Your task to perform on an android device: toggle javascript in the chrome app Image 0: 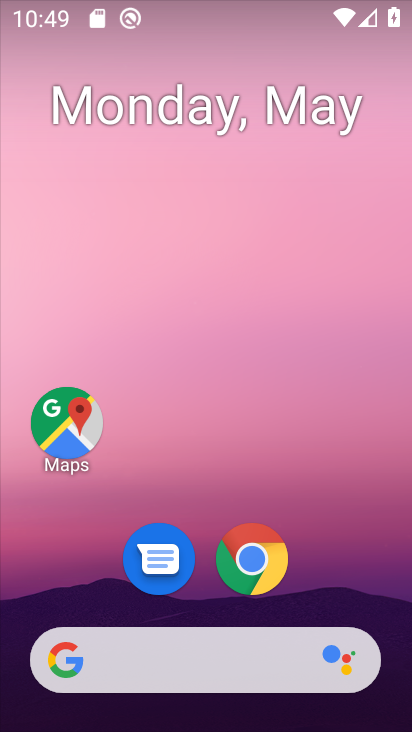
Step 0: click (262, 579)
Your task to perform on an android device: toggle javascript in the chrome app Image 1: 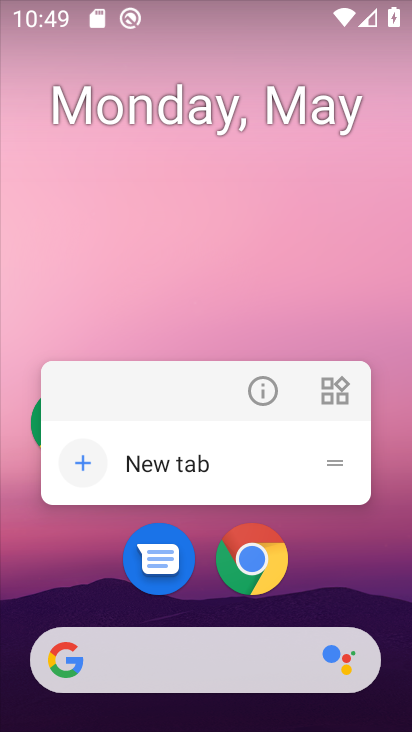
Step 1: click (243, 578)
Your task to perform on an android device: toggle javascript in the chrome app Image 2: 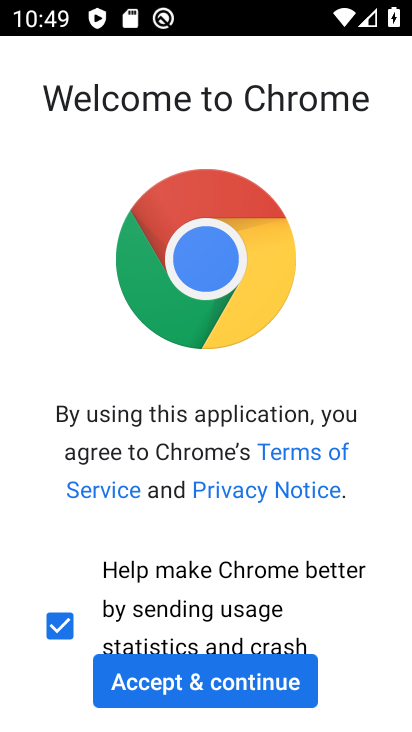
Step 2: click (218, 665)
Your task to perform on an android device: toggle javascript in the chrome app Image 3: 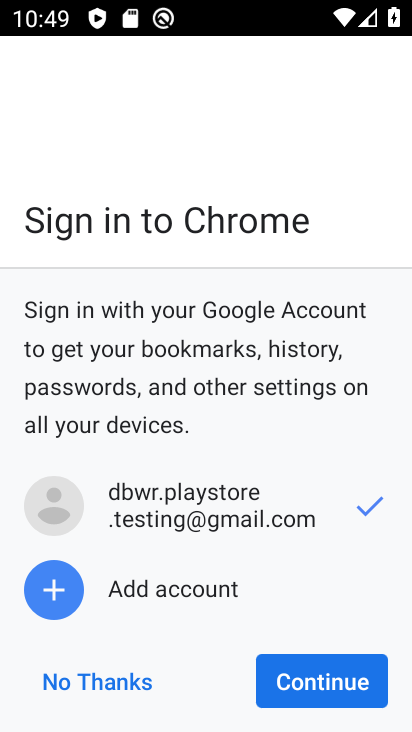
Step 3: click (308, 694)
Your task to perform on an android device: toggle javascript in the chrome app Image 4: 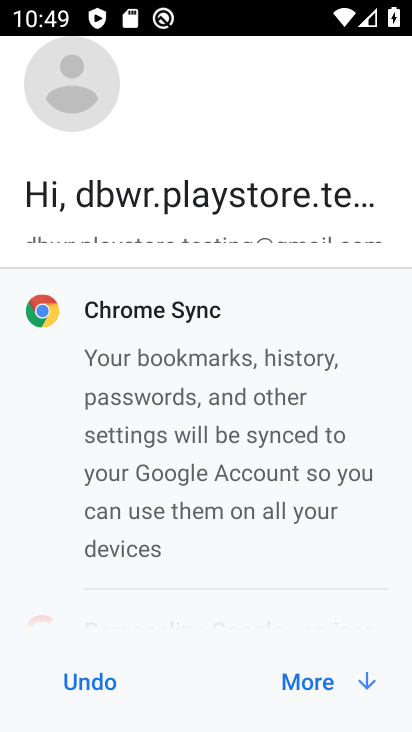
Step 4: click (355, 689)
Your task to perform on an android device: toggle javascript in the chrome app Image 5: 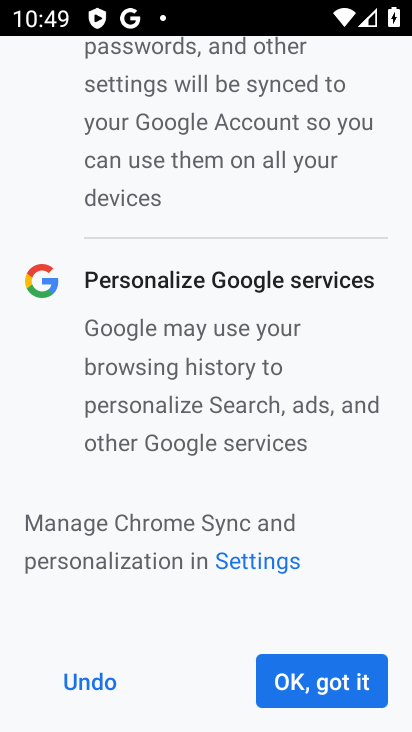
Step 5: click (356, 688)
Your task to perform on an android device: toggle javascript in the chrome app Image 6: 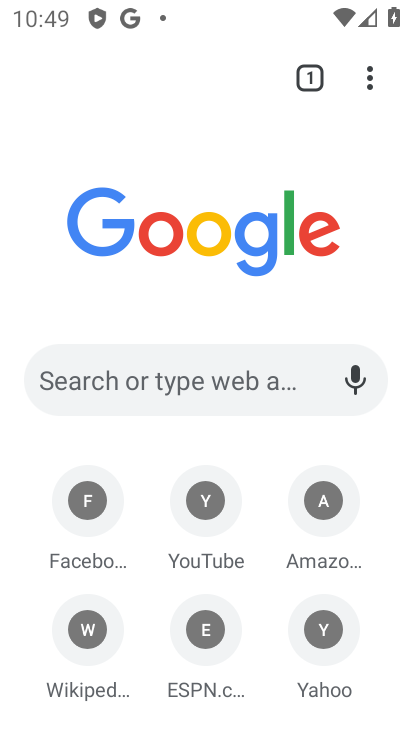
Step 6: drag from (366, 80) to (189, 623)
Your task to perform on an android device: toggle javascript in the chrome app Image 7: 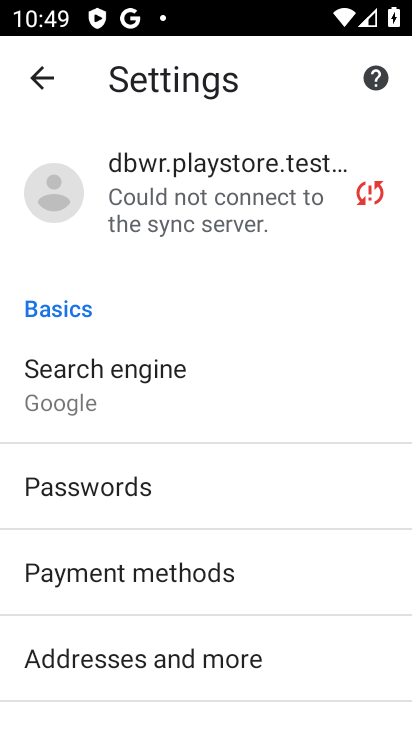
Step 7: drag from (190, 632) to (273, 244)
Your task to perform on an android device: toggle javascript in the chrome app Image 8: 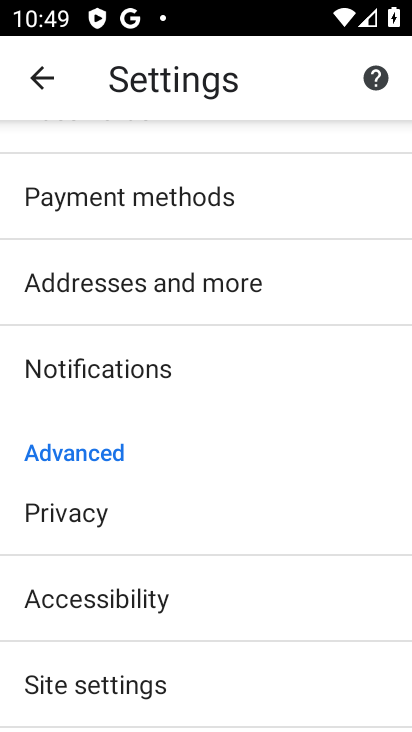
Step 8: drag from (209, 396) to (230, 323)
Your task to perform on an android device: toggle javascript in the chrome app Image 9: 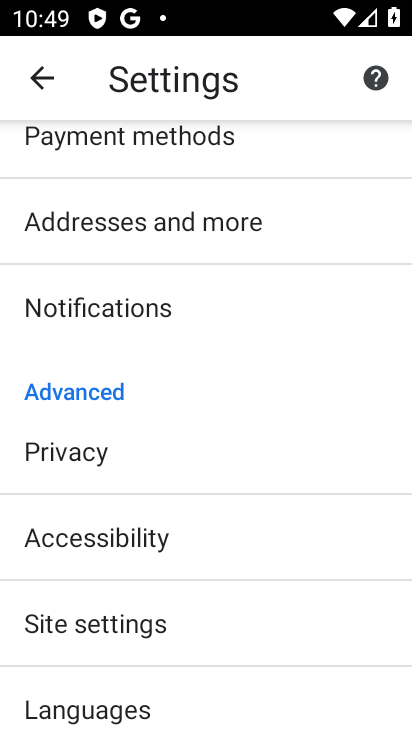
Step 9: click (174, 630)
Your task to perform on an android device: toggle javascript in the chrome app Image 10: 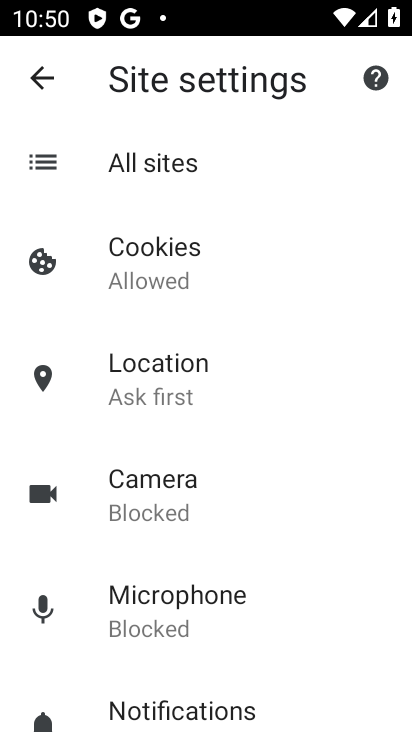
Step 10: drag from (203, 643) to (268, 315)
Your task to perform on an android device: toggle javascript in the chrome app Image 11: 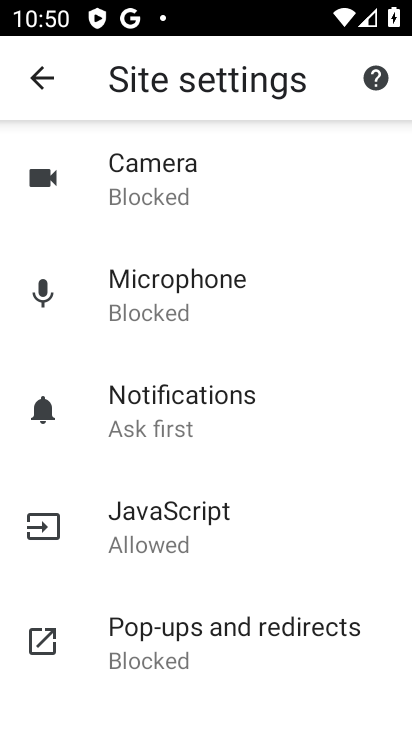
Step 11: click (216, 527)
Your task to perform on an android device: toggle javascript in the chrome app Image 12: 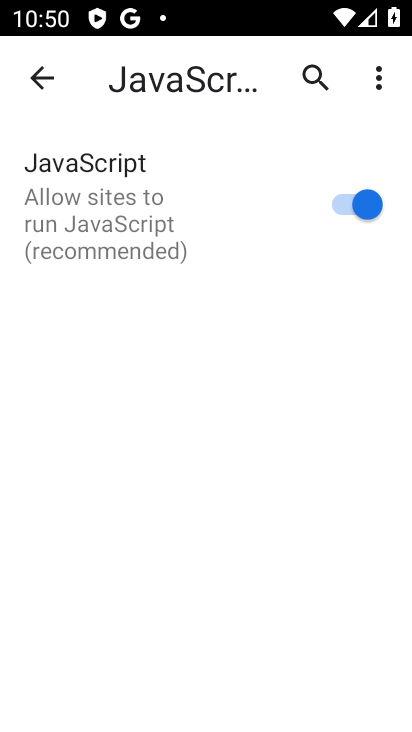
Step 12: click (356, 194)
Your task to perform on an android device: toggle javascript in the chrome app Image 13: 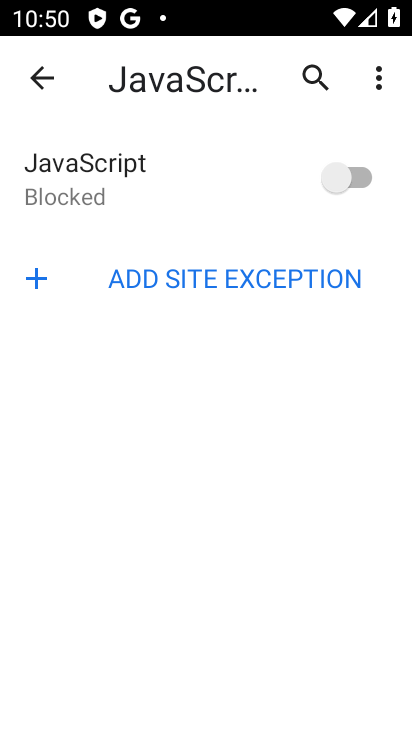
Step 13: task complete